Your task to perform on an android device: When is my next meeting? Image 0: 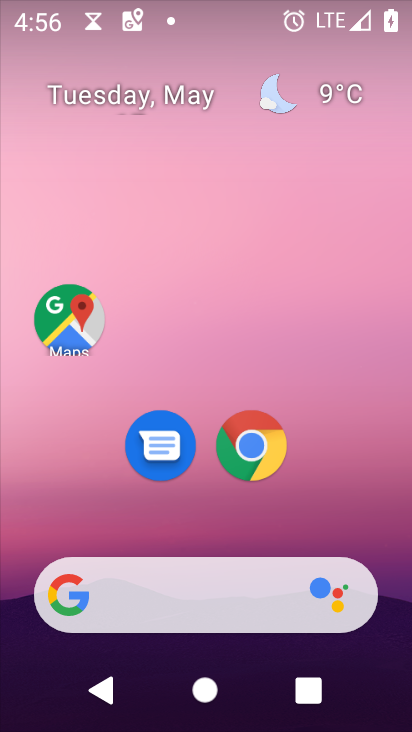
Step 0: drag from (330, 602) to (271, 73)
Your task to perform on an android device: When is my next meeting? Image 1: 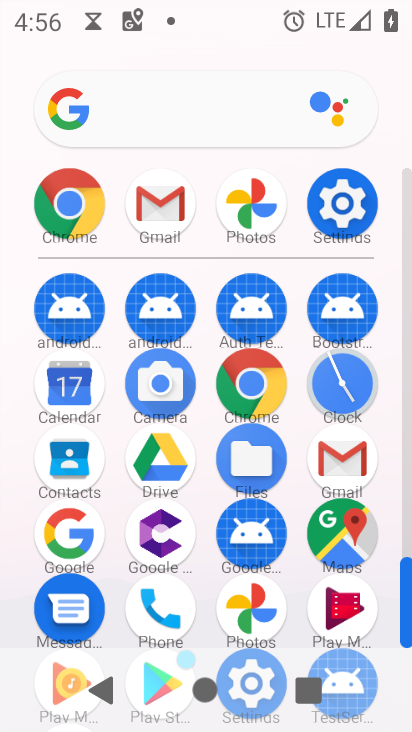
Step 1: click (255, 385)
Your task to perform on an android device: When is my next meeting? Image 2: 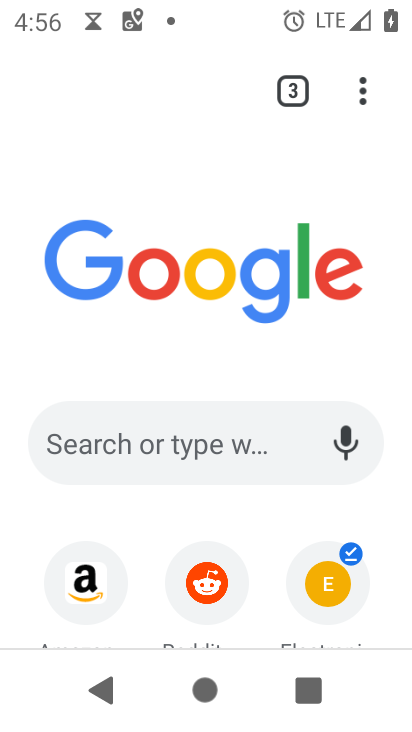
Step 2: press home button
Your task to perform on an android device: When is my next meeting? Image 3: 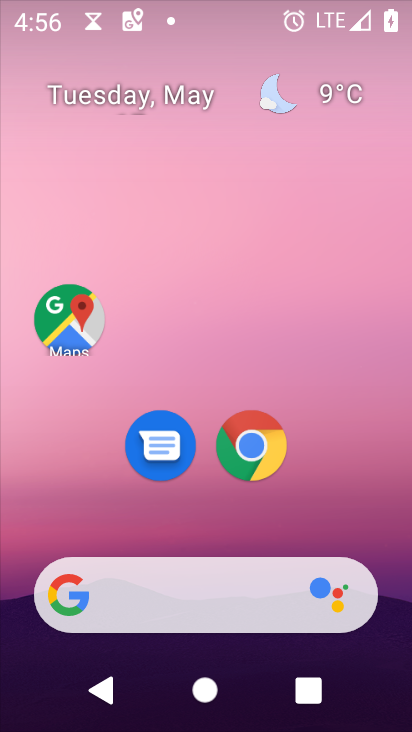
Step 3: drag from (261, 622) to (246, 172)
Your task to perform on an android device: When is my next meeting? Image 4: 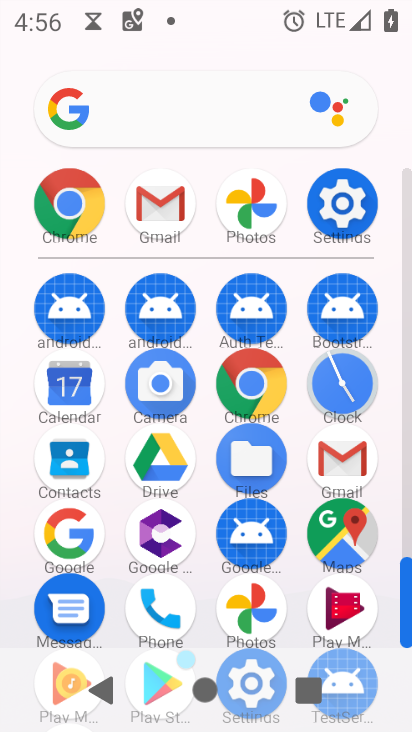
Step 4: click (72, 381)
Your task to perform on an android device: When is my next meeting? Image 5: 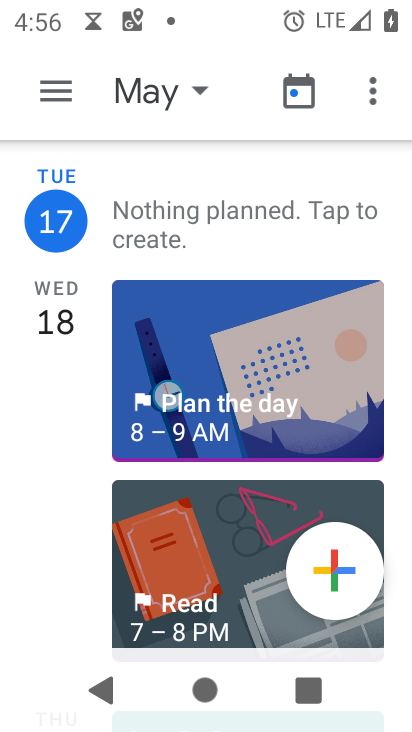
Step 5: click (198, 88)
Your task to perform on an android device: When is my next meeting? Image 6: 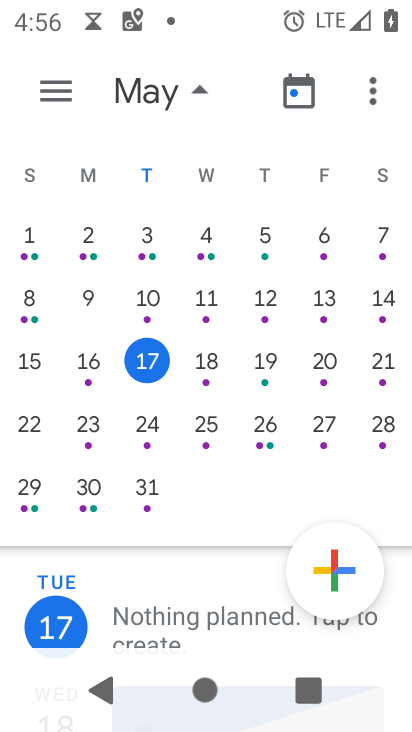
Step 6: task complete